Your task to perform on an android device: turn smart compose on in the gmail app Image 0: 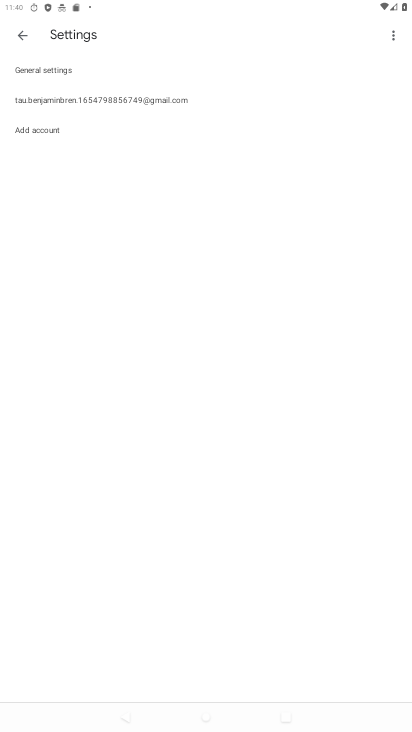
Step 0: press home button
Your task to perform on an android device: turn smart compose on in the gmail app Image 1: 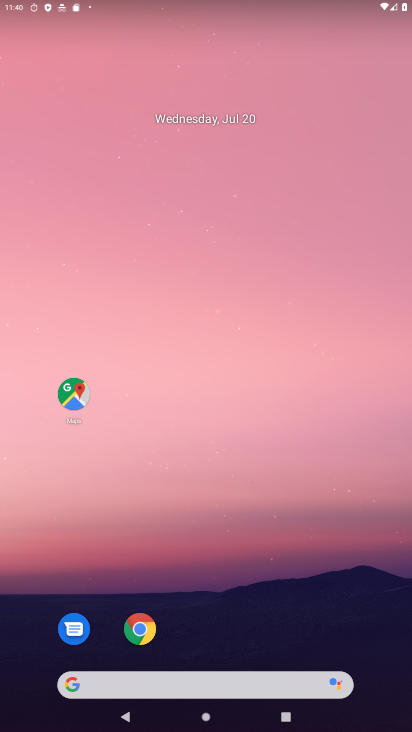
Step 1: drag from (297, 693) to (276, 92)
Your task to perform on an android device: turn smart compose on in the gmail app Image 2: 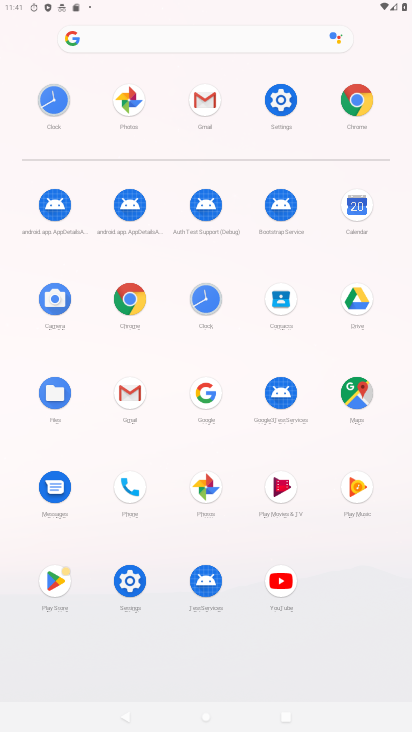
Step 2: click (119, 398)
Your task to perform on an android device: turn smart compose on in the gmail app Image 3: 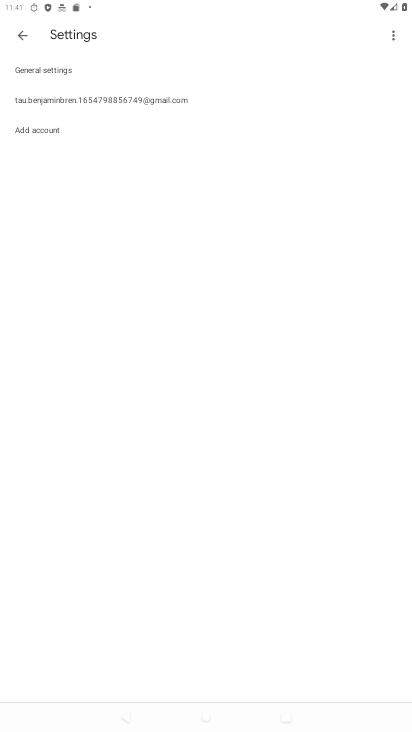
Step 3: click (131, 103)
Your task to perform on an android device: turn smart compose on in the gmail app Image 4: 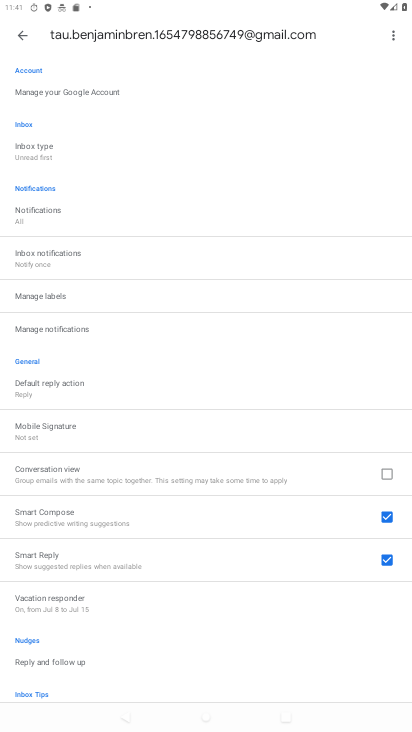
Step 4: task complete